Your task to perform on an android device: Show me popular videos on Youtube Image 0: 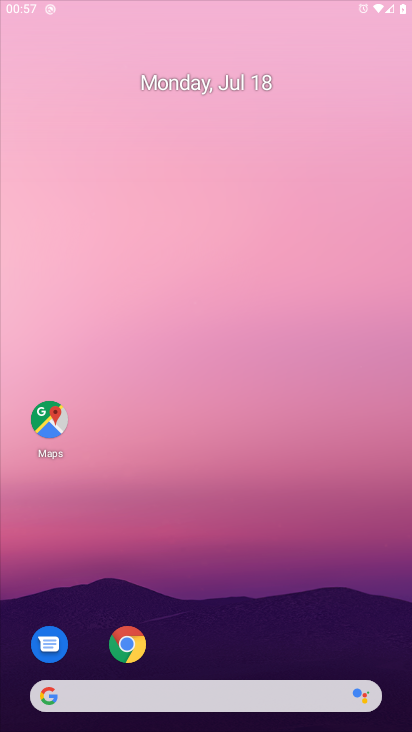
Step 0: press home button
Your task to perform on an android device: Show me popular videos on Youtube Image 1: 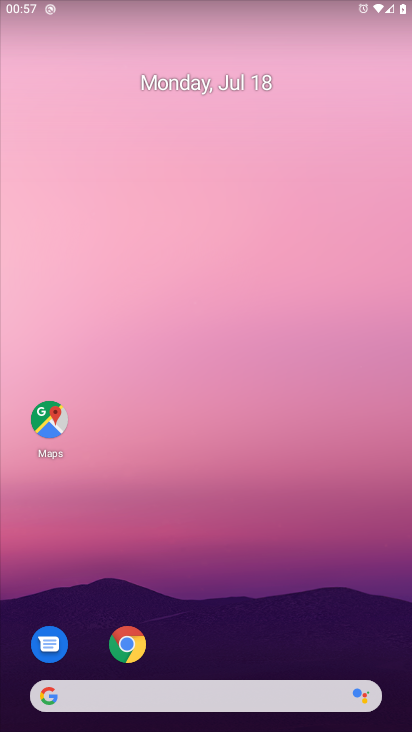
Step 1: drag from (267, 464) to (332, 138)
Your task to perform on an android device: Show me popular videos on Youtube Image 2: 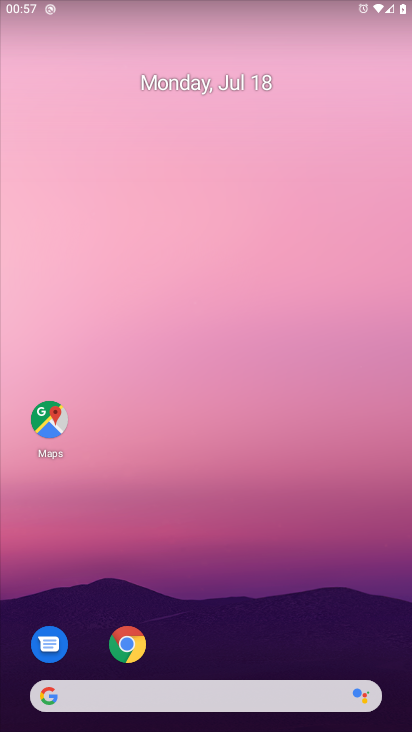
Step 2: drag from (247, 592) to (349, 124)
Your task to perform on an android device: Show me popular videos on Youtube Image 3: 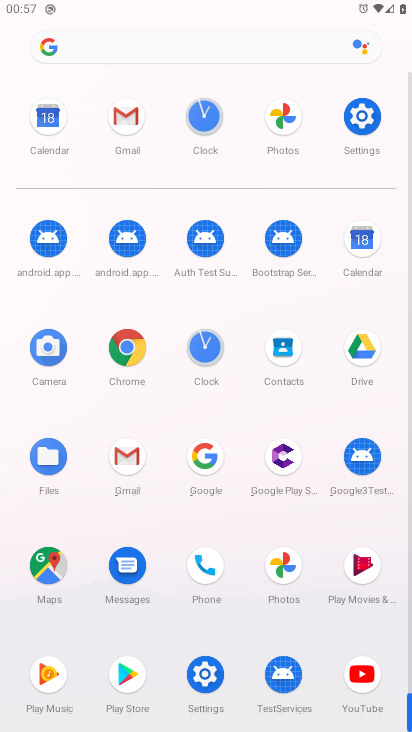
Step 3: click (361, 676)
Your task to perform on an android device: Show me popular videos on Youtube Image 4: 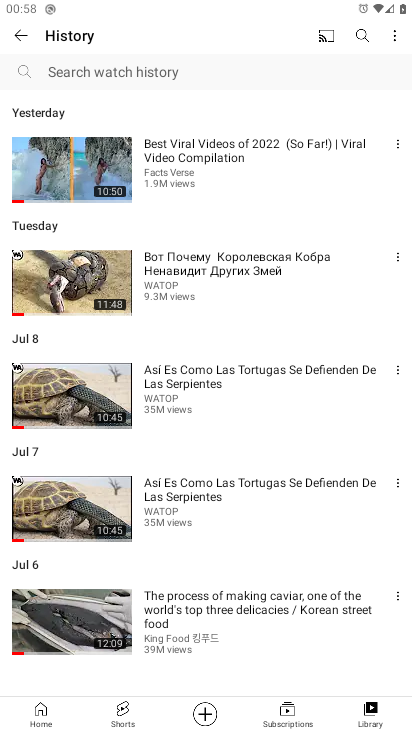
Step 4: click (30, 34)
Your task to perform on an android device: Show me popular videos on Youtube Image 5: 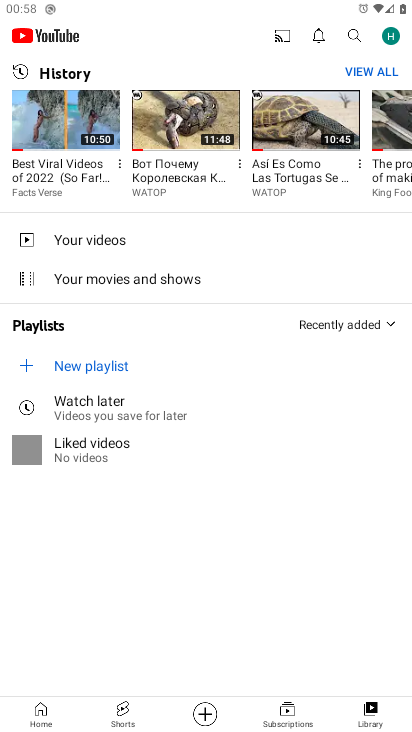
Step 5: click (40, 714)
Your task to perform on an android device: Show me popular videos on Youtube Image 6: 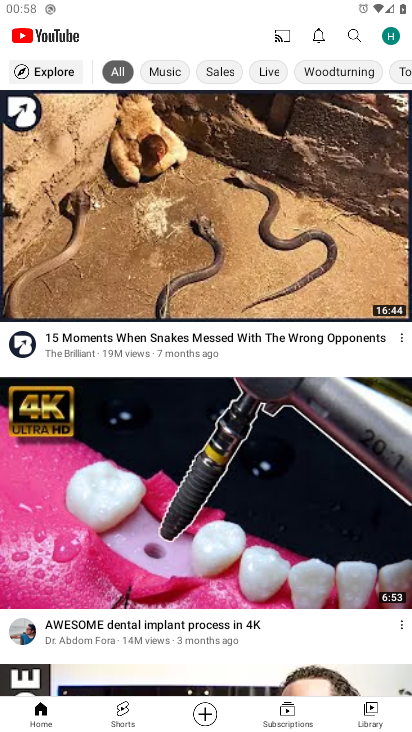
Step 6: click (49, 70)
Your task to perform on an android device: Show me popular videos on Youtube Image 7: 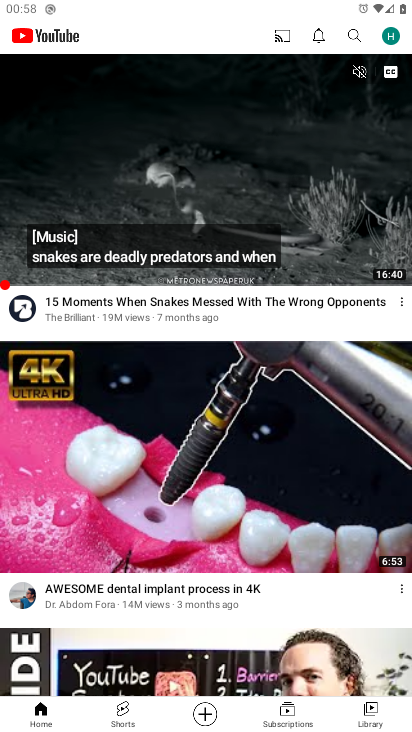
Step 7: task complete